Your task to perform on an android device: open app "Spotify: Music and Podcasts" (install if not already installed) and enter user name: "principled@inbox.com" and password: "arrests" Image 0: 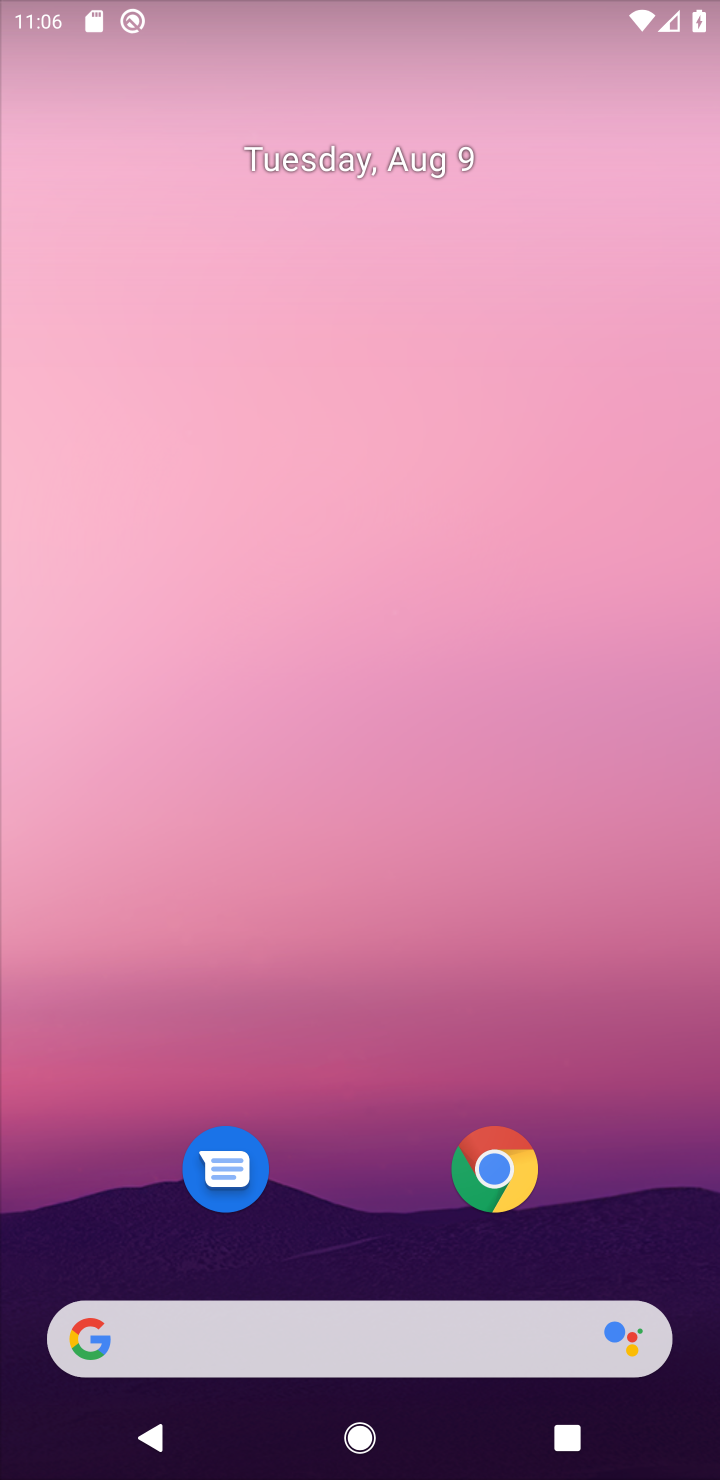
Step 0: press home button
Your task to perform on an android device: open app "Spotify: Music and Podcasts" (install if not already installed) and enter user name: "principled@inbox.com" and password: "arrests" Image 1: 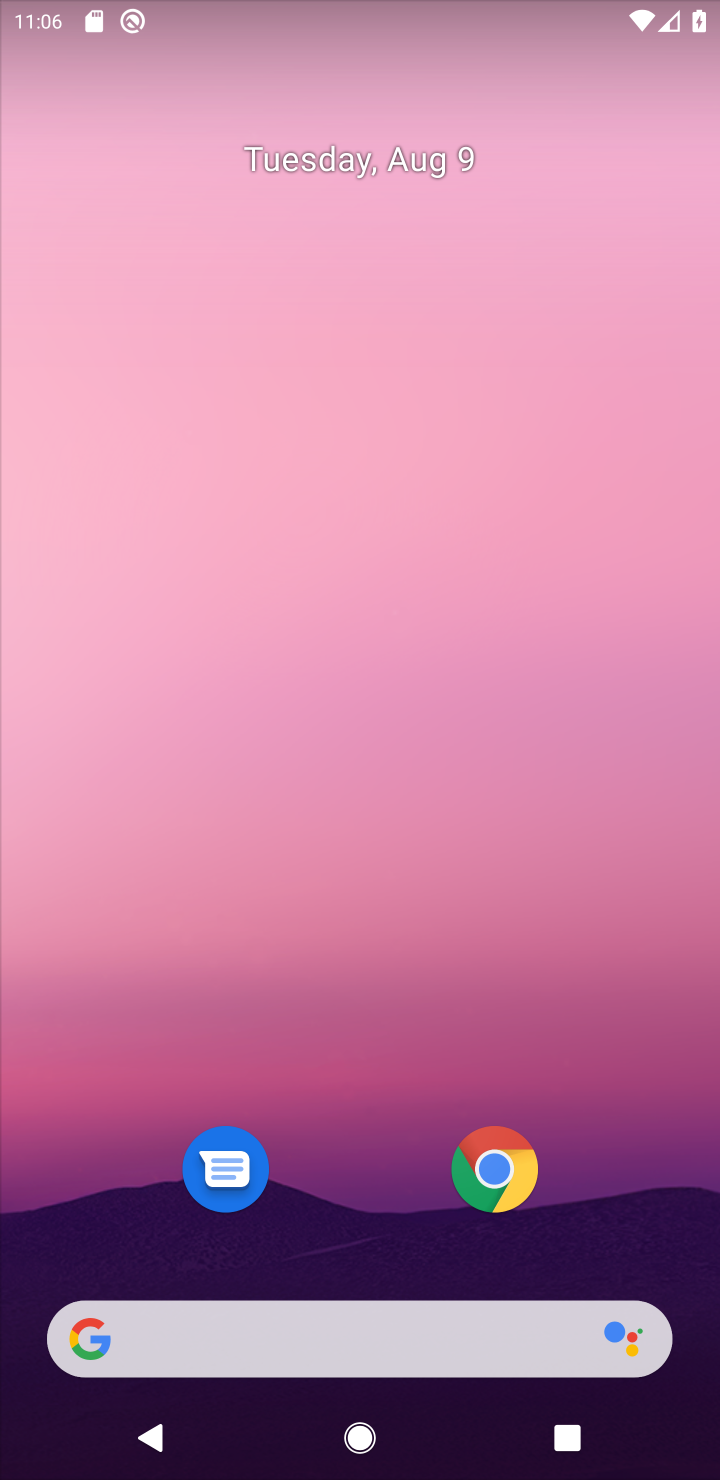
Step 1: drag from (607, 1187) to (654, 205)
Your task to perform on an android device: open app "Spotify: Music and Podcasts" (install if not already installed) and enter user name: "principled@inbox.com" and password: "arrests" Image 2: 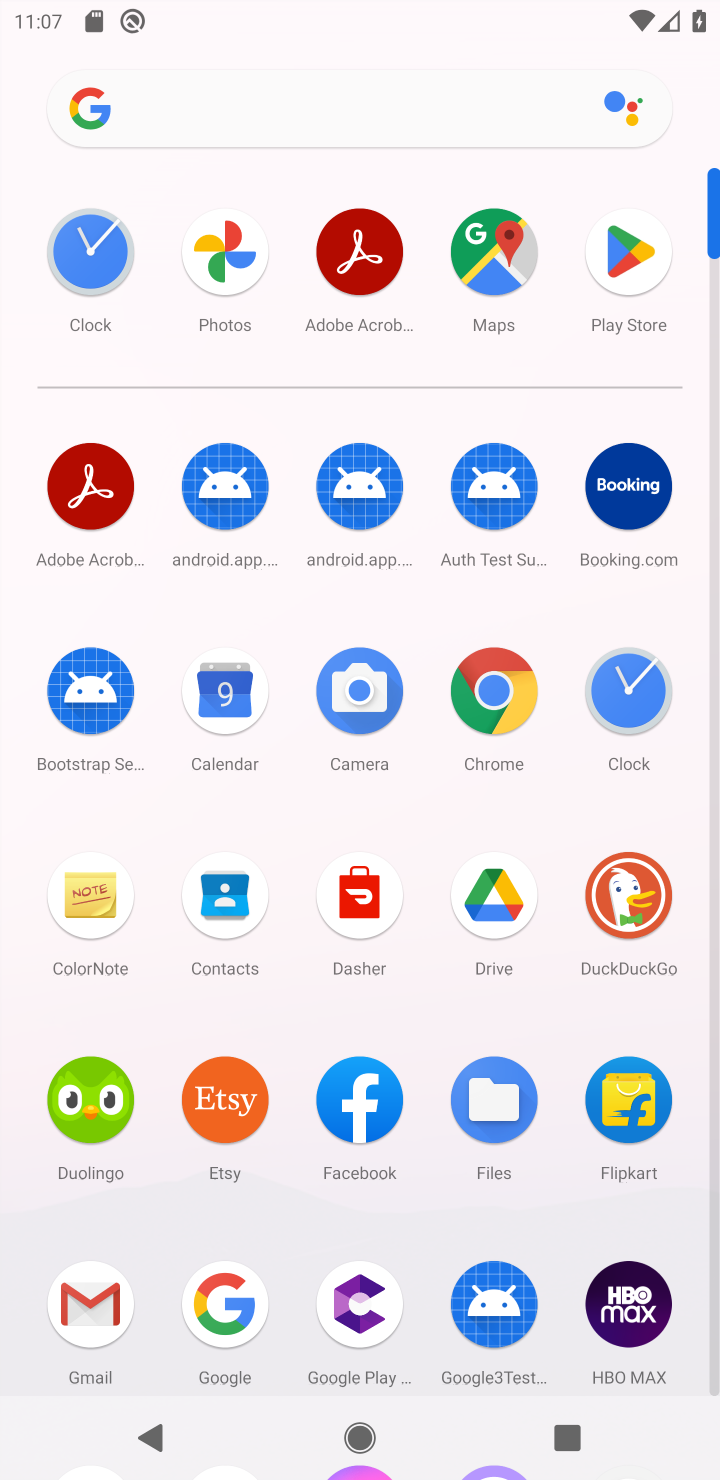
Step 2: click (641, 240)
Your task to perform on an android device: open app "Spotify: Music and Podcasts" (install if not already installed) and enter user name: "principled@inbox.com" and password: "arrests" Image 3: 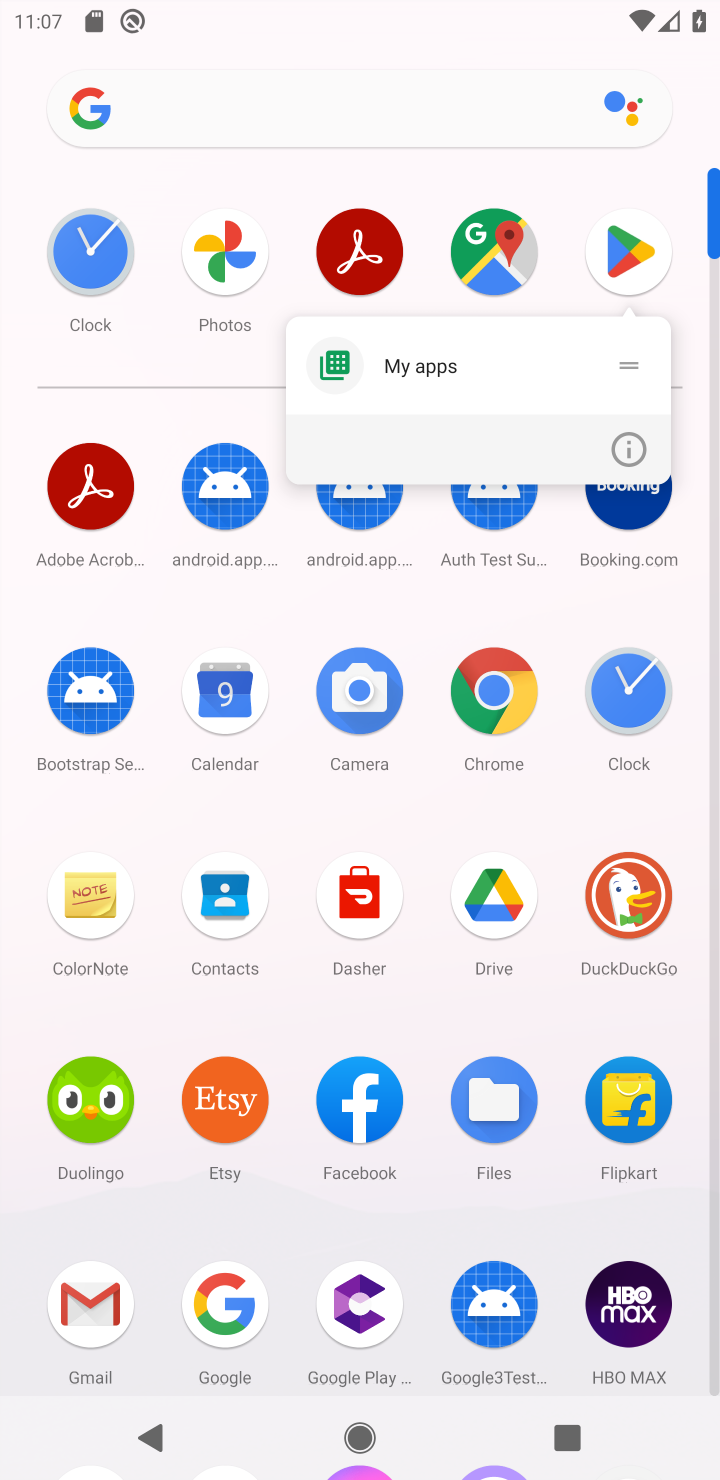
Step 3: click (634, 234)
Your task to perform on an android device: open app "Spotify: Music and Podcasts" (install if not already installed) and enter user name: "principled@inbox.com" and password: "arrests" Image 4: 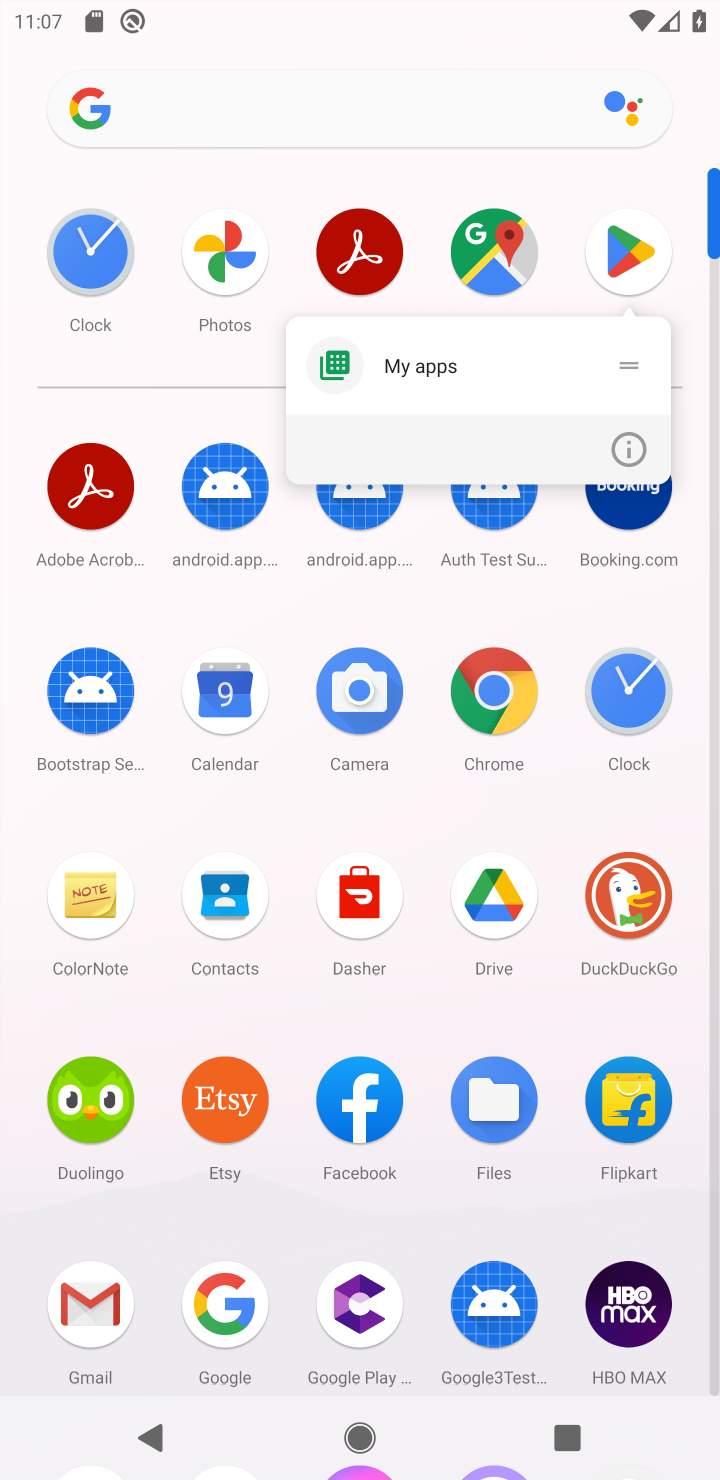
Step 4: click (623, 241)
Your task to perform on an android device: open app "Spotify: Music and Podcasts" (install if not already installed) and enter user name: "principled@inbox.com" and password: "arrests" Image 5: 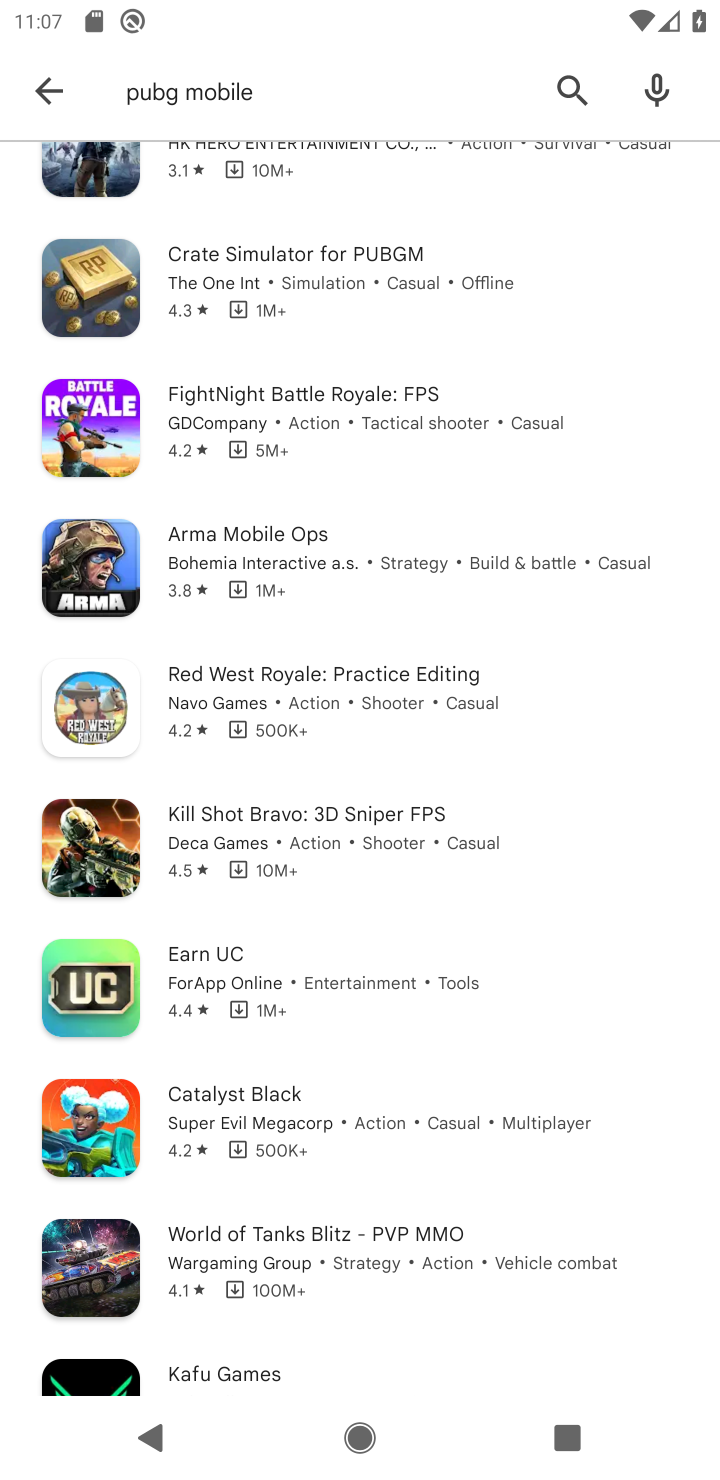
Step 5: click (569, 86)
Your task to perform on an android device: open app "Spotify: Music and Podcasts" (install if not already installed) and enter user name: "principled@inbox.com" and password: "arrests" Image 6: 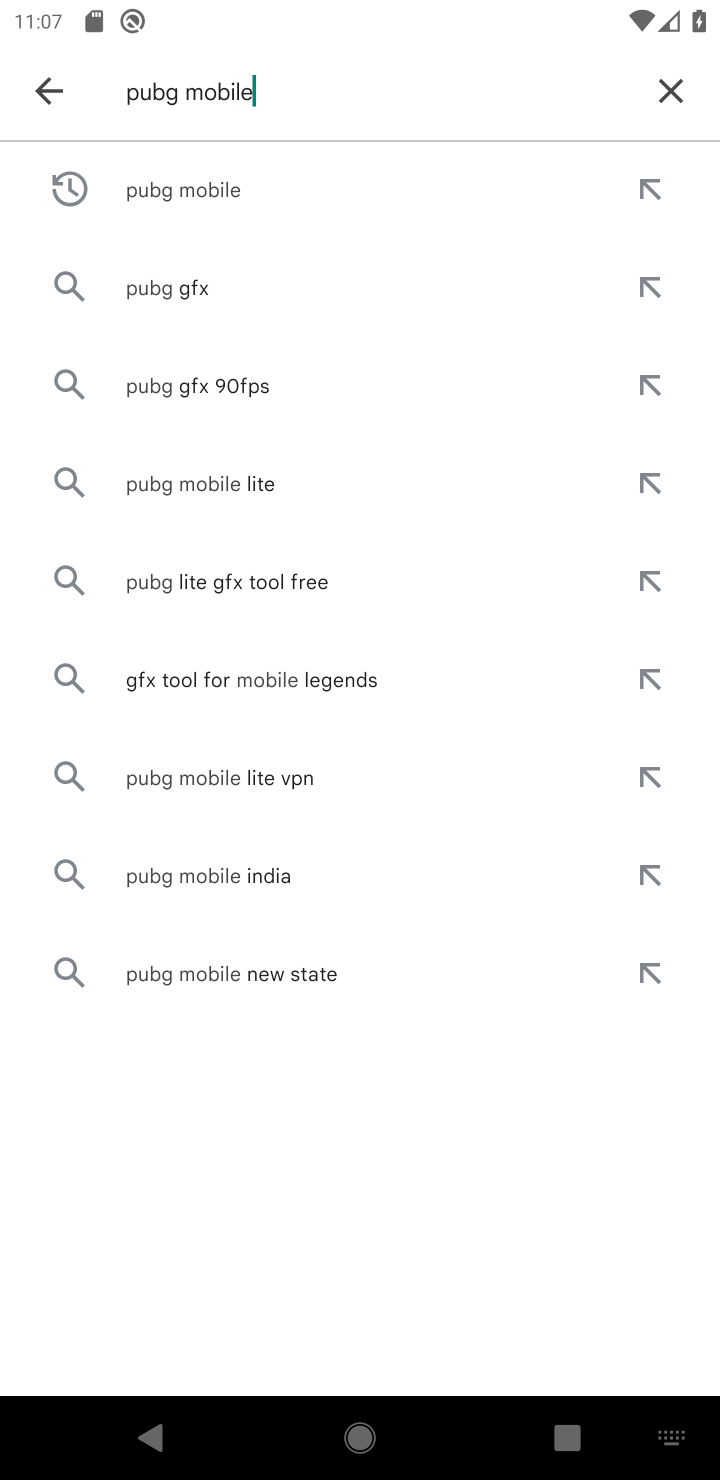
Step 6: click (669, 94)
Your task to perform on an android device: open app "Spotify: Music and Podcasts" (install if not already installed) and enter user name: "principled@inbox.com" and password: "arrests" Image 7: 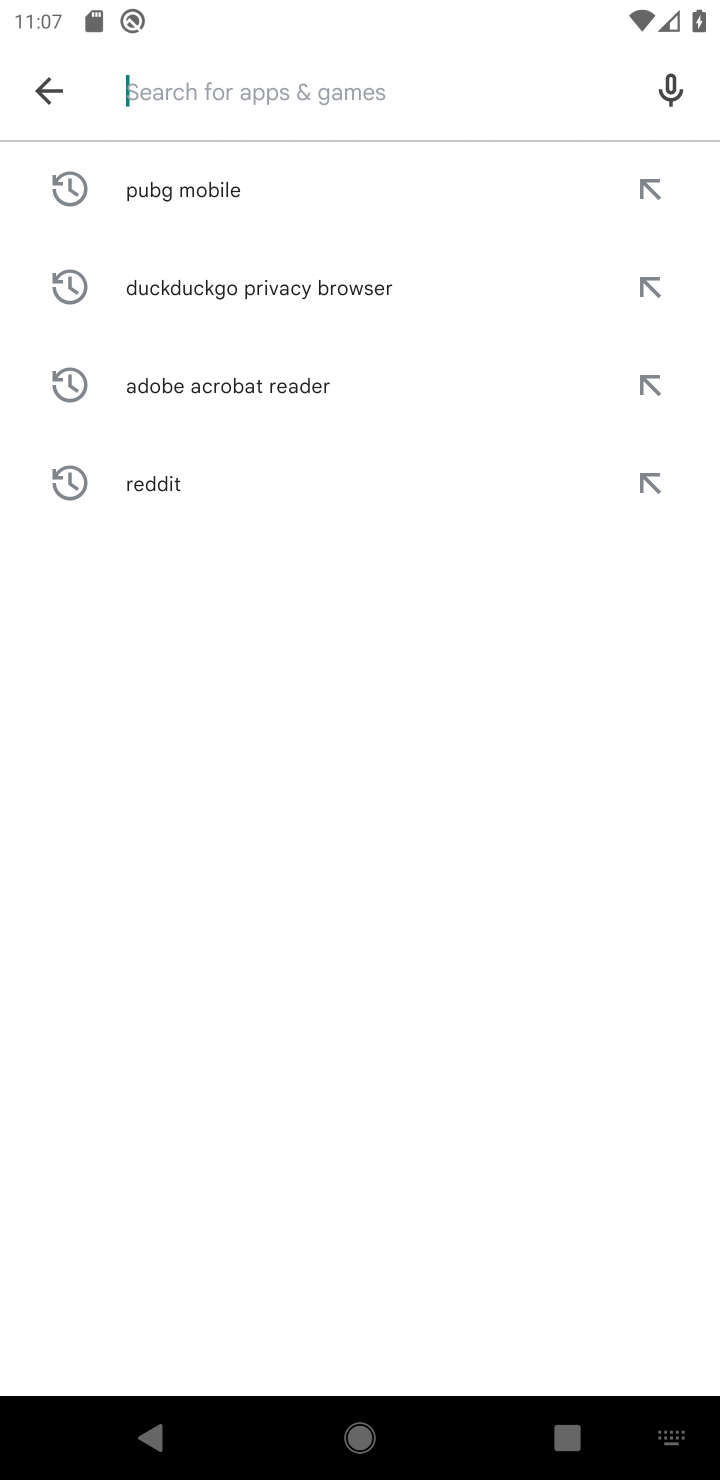
Step 7: type "Spotify: Music and Podcasts"
Your task to perform on an android device: open app "Spotify: Music and Podcasts" (install if not already installed) and enter user name: "principled@inbox.com" and password: "arrests" Image 8: 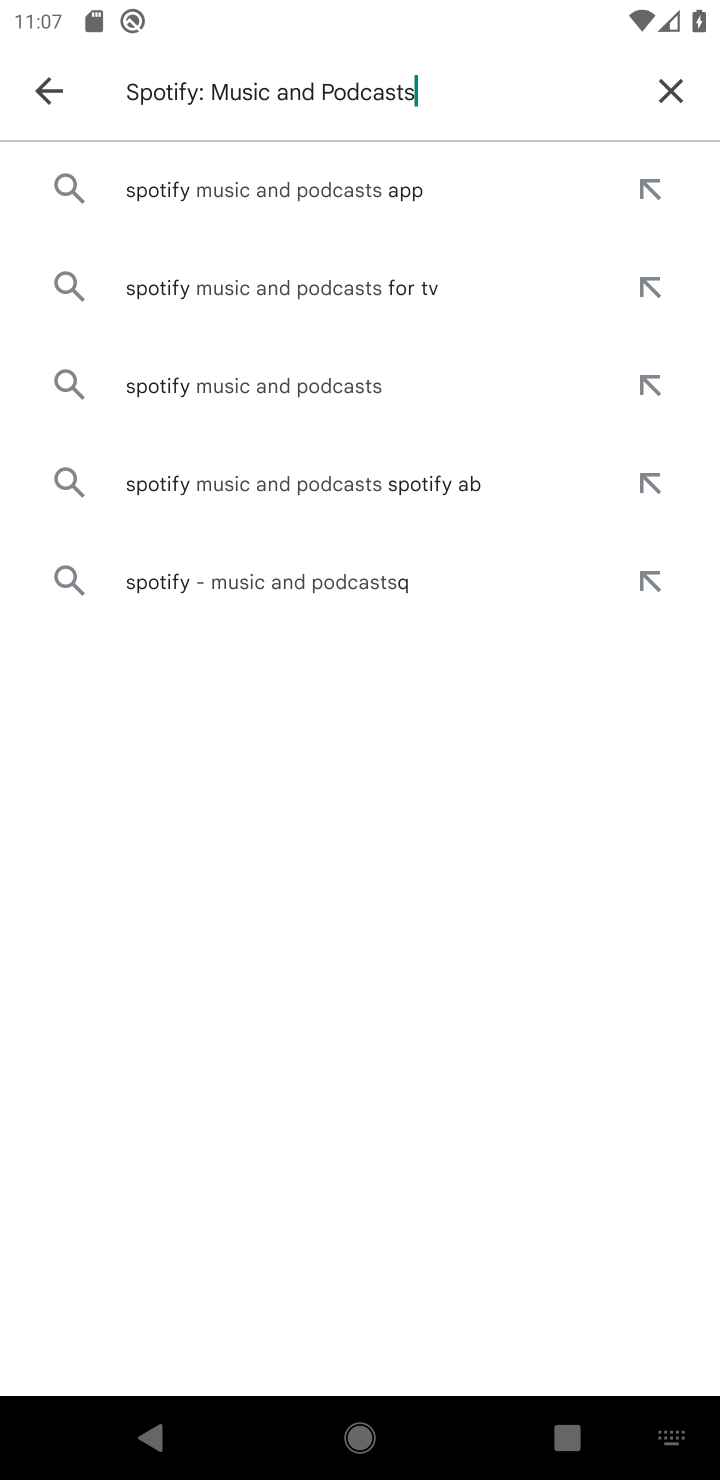
Step 8: click (342, 192)
Your task to perform on an android device: open app "Spotify: Music and Podcasts" (install if not already installed) and enter user name: "principled@inbox.com" and password: "arrests" Image 9: 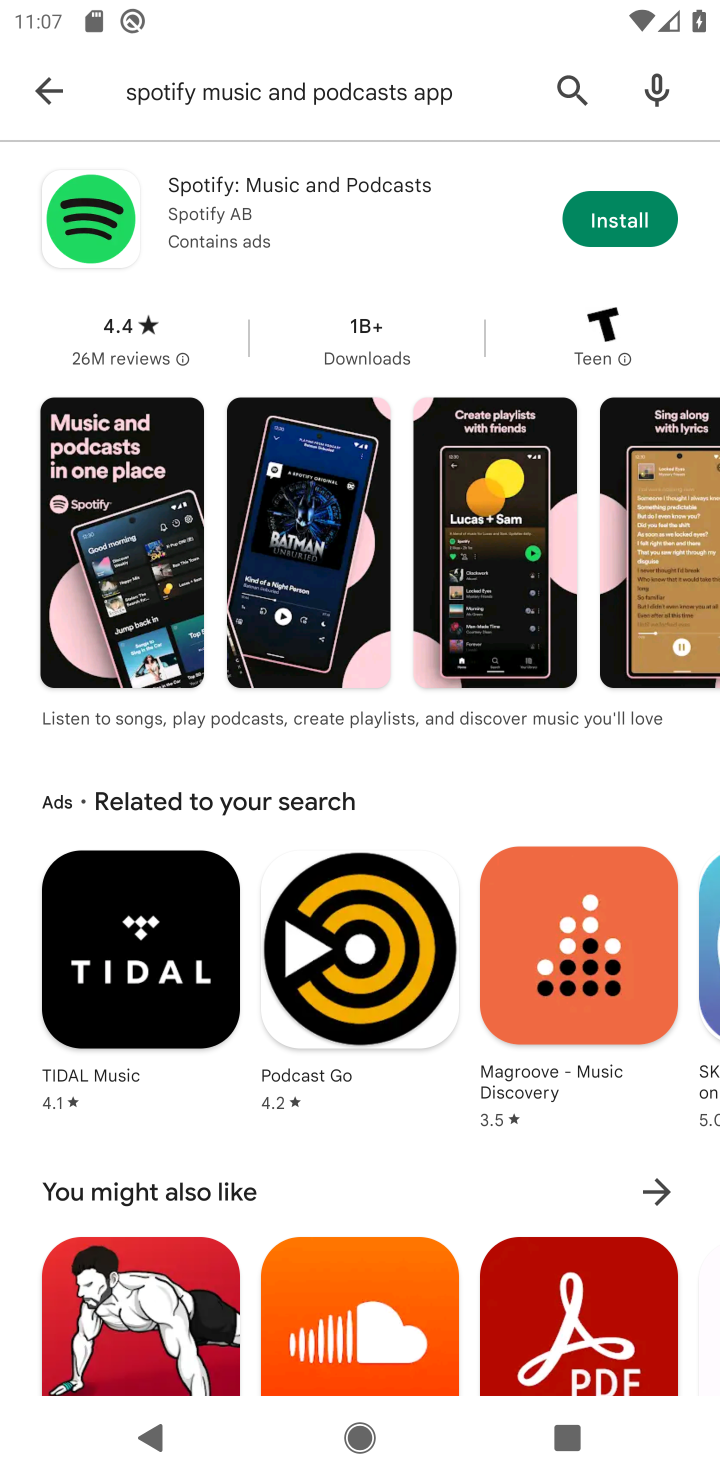
Step 9: click (599, 214)
Your task to perform on an android device: open app "Spotify: Music and Podcasts" (install if not already installed) and enter user name: "principled@inbox.com" and password: "arrests" Image 10: 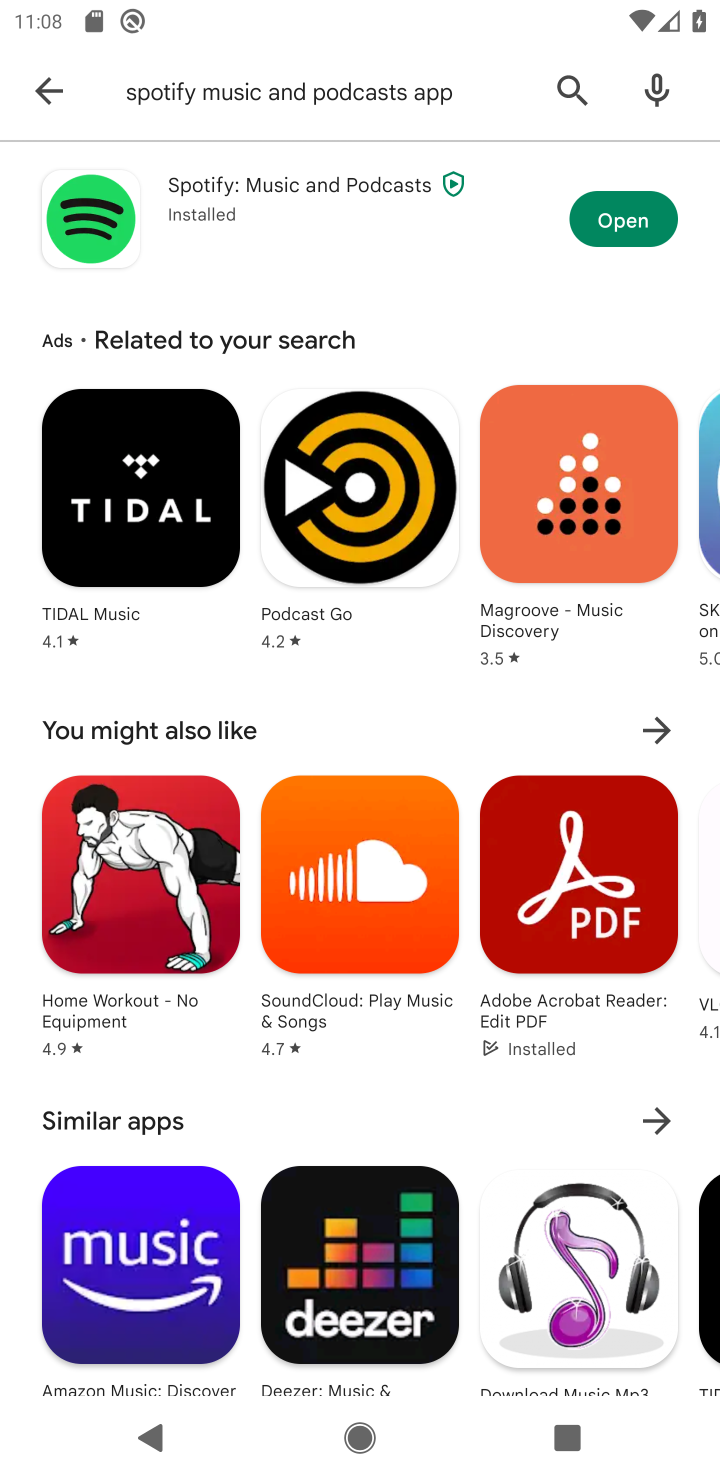
Step 10: click (612, 224)
Your task to perform on an android device: open app "Spotify: Music and Podcasts" (install if not already installed) and enter user name: "principled@inbox.com" and password: "arrests" Image 11: 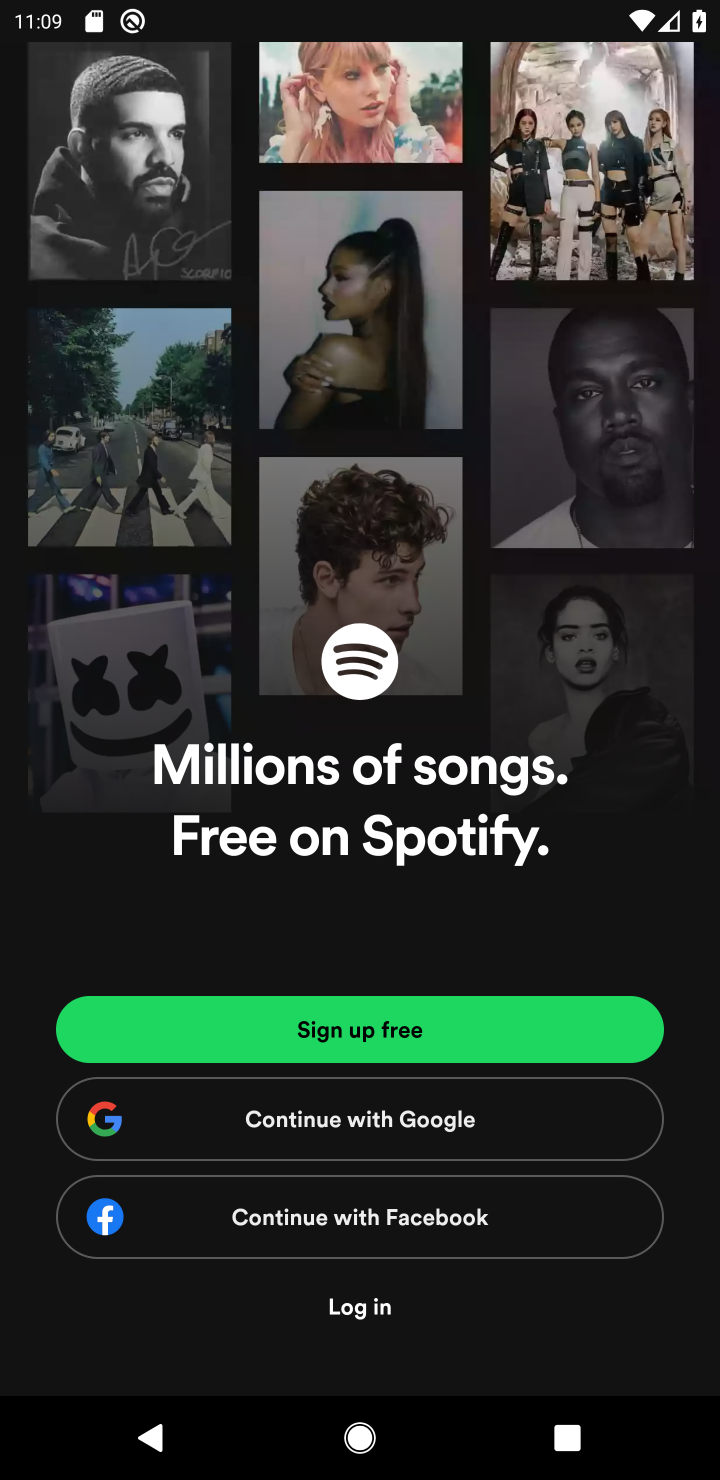
Step 11: click (342, 1299)
Your task to perform on an android device: open app "Spotify: Music and Podcasts" (install if not already installed) and enter user name: "principled@inbox.com" and password: "arrests" Image 12: 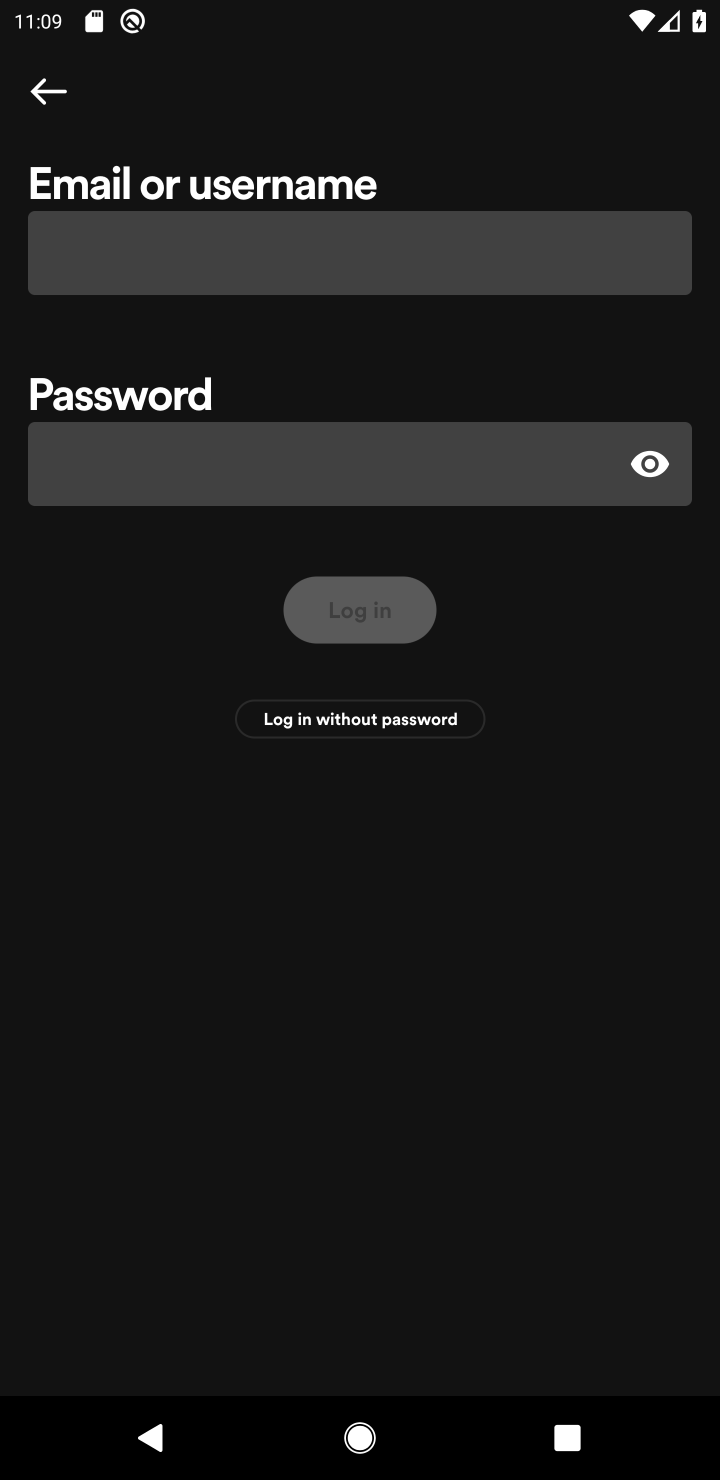
Step 12: click (284, 261)
Your task to perform on an android device: open app "Spotify: Music and Podcasts" (install if not already installed) and enter user name: "principled@inbox.com" and password: "arrests" Image 13: 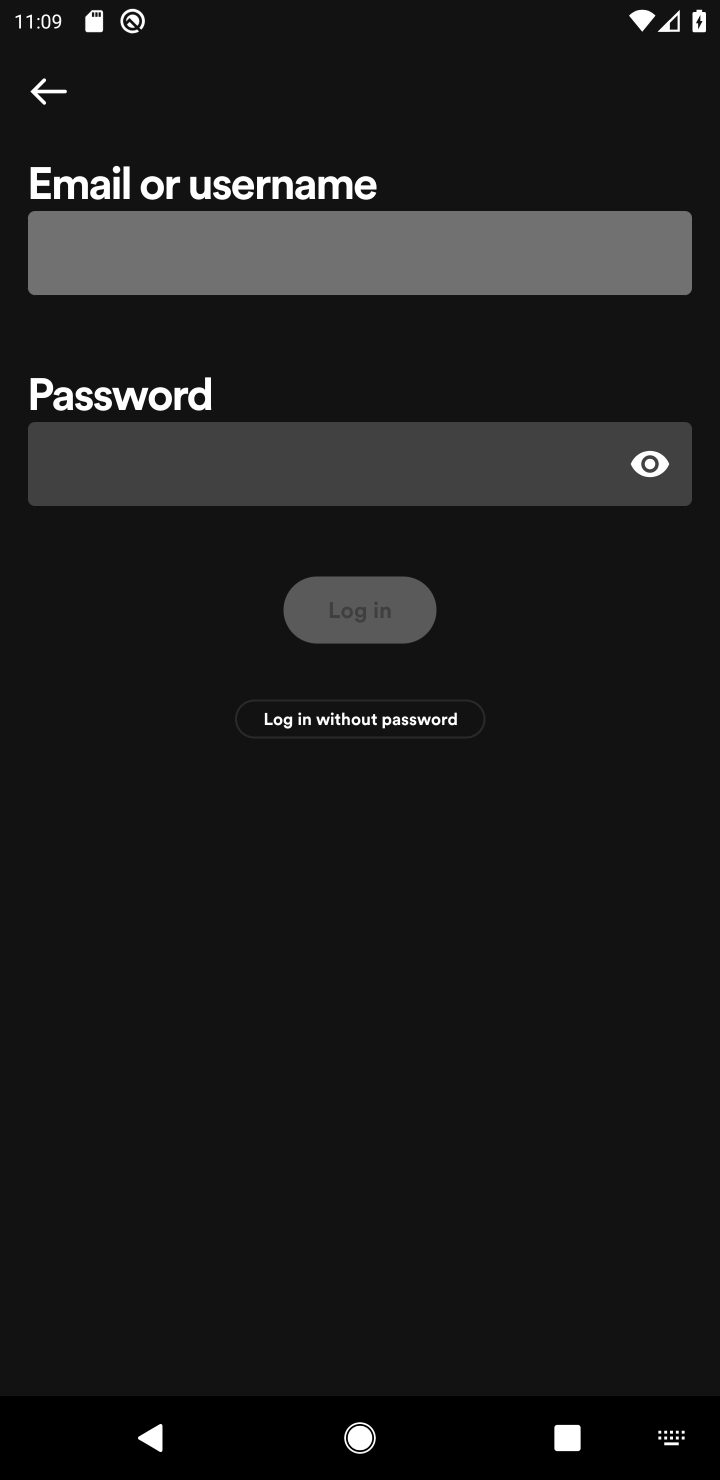
Step 13: press enter
Your task to perform on an android device: open app "Spotify: Music and Podcasts" (install if not already installed) and enter user name: "principled@inbox.com" and password: "arrests" Image 14: 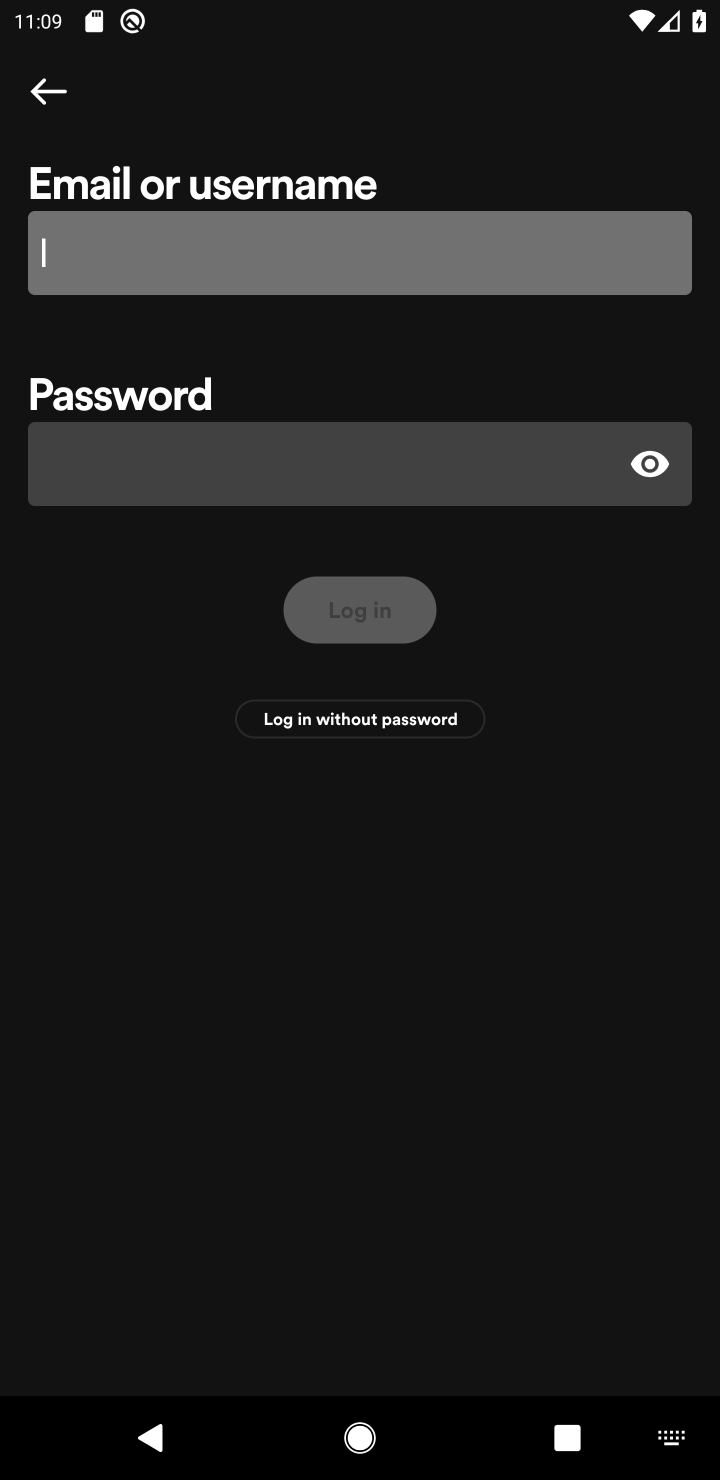
Step 14: type "principled@inbox.com"
Your task to perform on an android device: open app "Spotify: Music and Podcasts" (install if not already installed) and enter user name: "principled@inbox.com" and password: "arrests" Image 15: 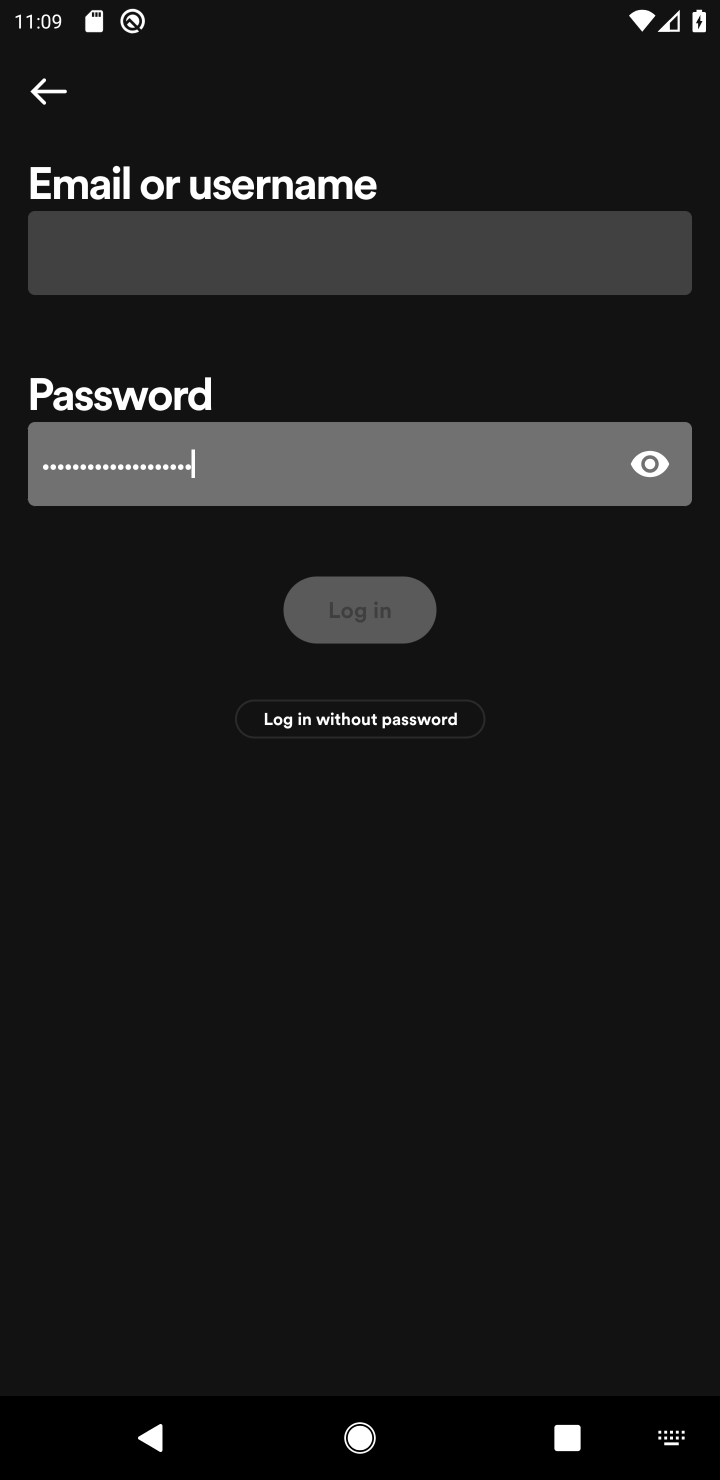
Step 15: click (233, 235)
Your task to perform on an android device: open app "Spotify: Music and Podcasts" (install if not already installed) and enter user name: "principled@inbox.com" and password: "arrests" Image 16: 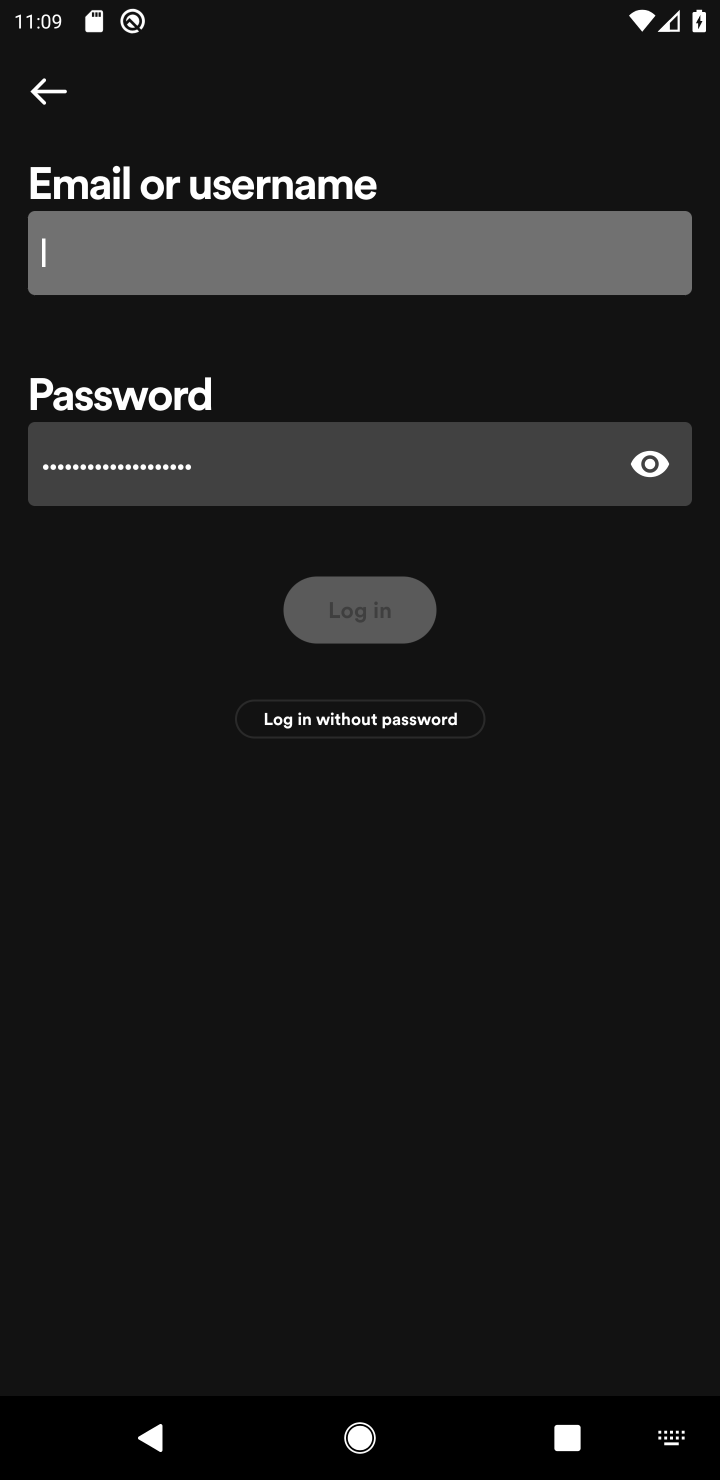
Step 16: press enter
Your task to perform on an android device: open app "Spotify: Music and Podcasts" (install if not already installed) and enter user name: "principled@inbox.com" and password: "arrests" Image 17: 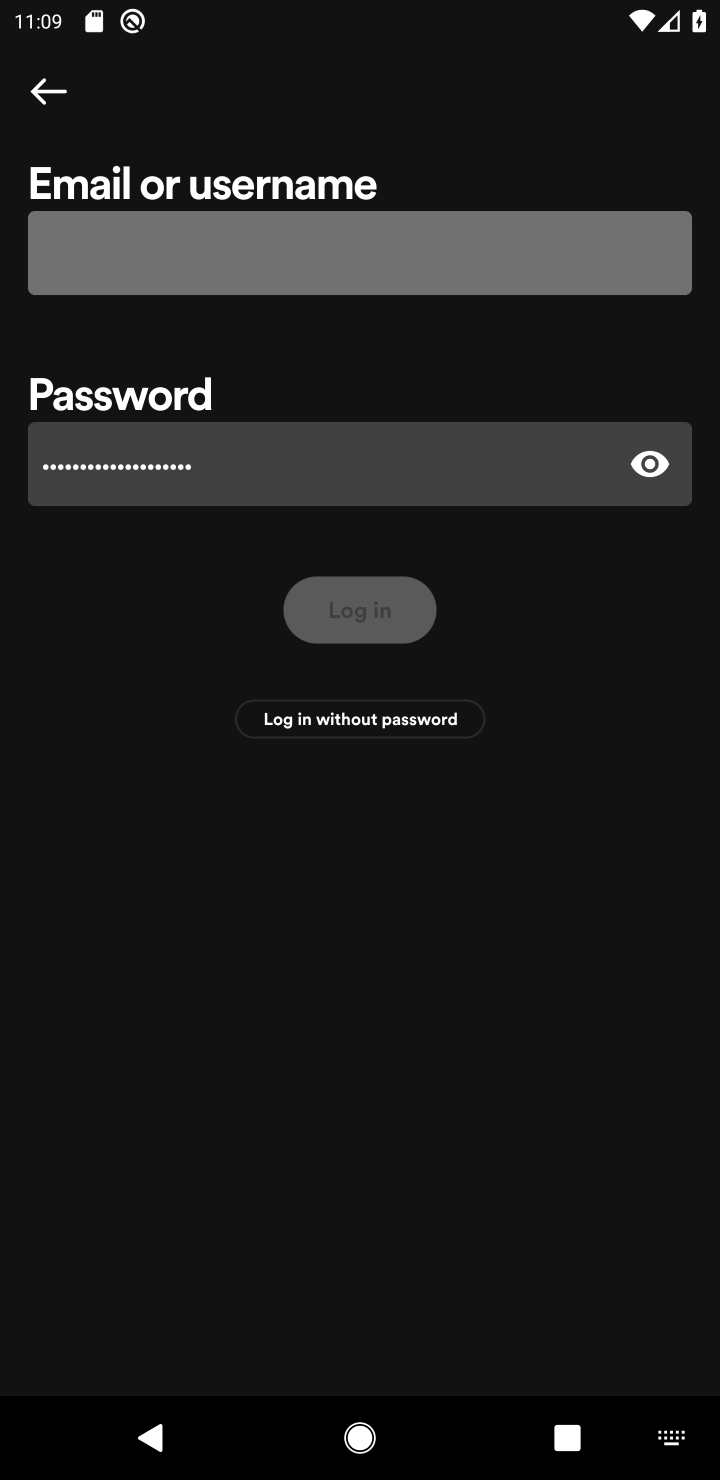
Step 17: type "principled@inbox.com"
Your task to perform on an android device: open app "Spotify: Music and Podcasts" (install if not already installed) and enter user name: "principled@inbox.com" and password: "arrests" Image 18: 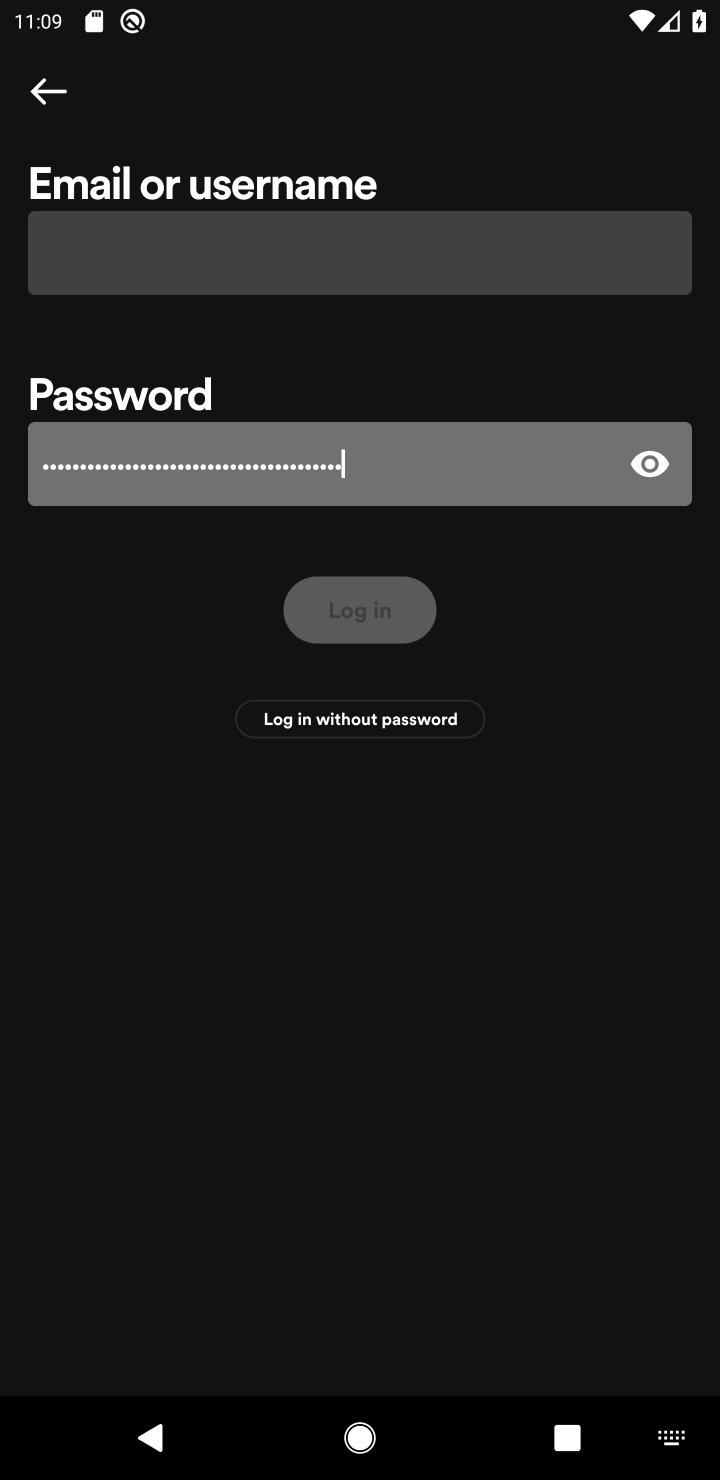
Step 18: task complete